Your task to perform on an android device: Open settings on Google Maps Image 0: 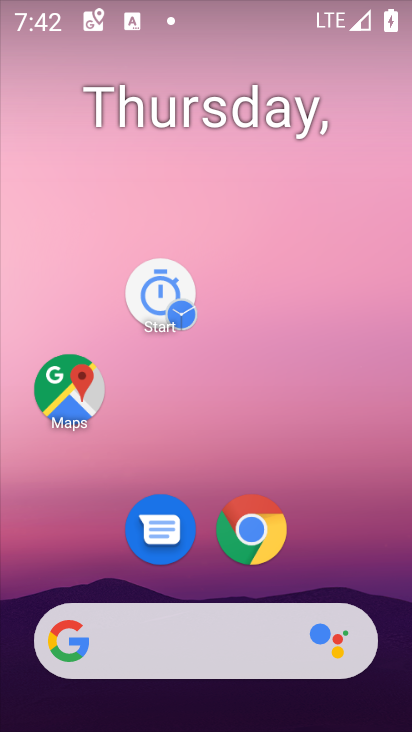
Step 0: drag from (346, 152) to (349, 62)
Your task to perform on an android device: Open settings on Google Maps Image 1: 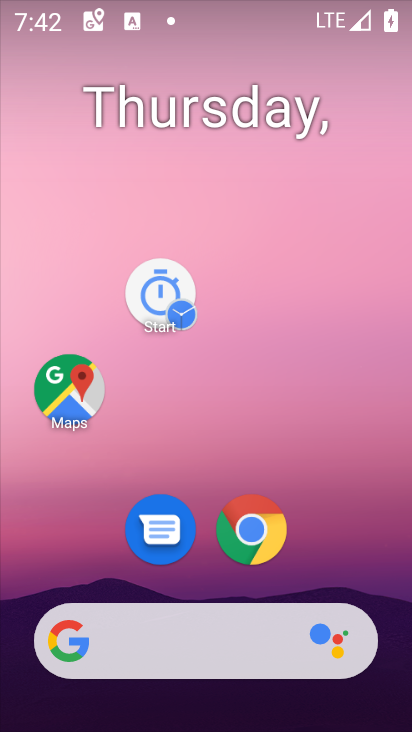
Step 1: drag from (308, 150) to (300, 116)
Your task to perform on an android device: Open settings on Google Maps Image 2: 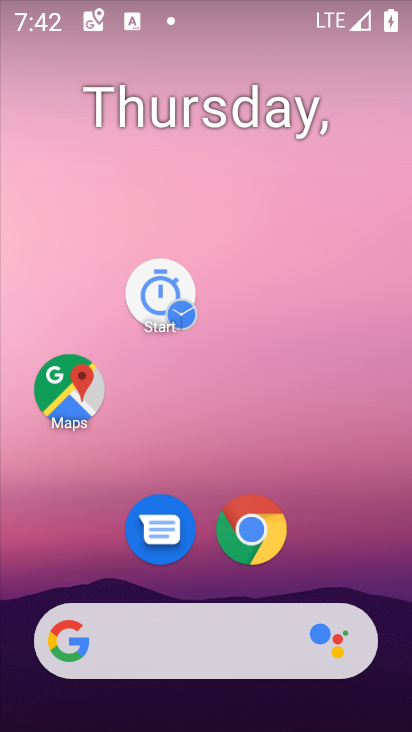
Step 2: drag from (282, 566) to (281, 118)
Your task to perform on an android device: Open settings on Google Maps Image 3: 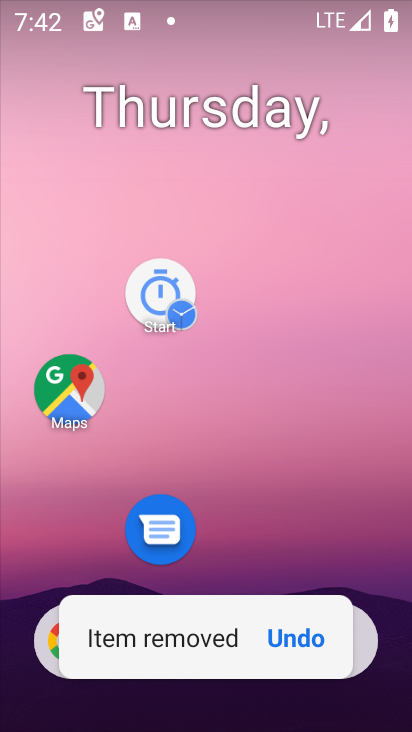
Step 3: drag from (300, 547) to (183, 5)
Your task to perform on an android device: Open settings on Google Maps Image 4: 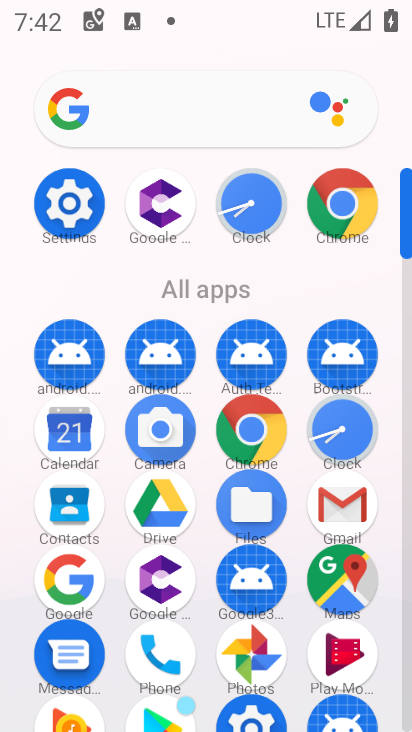
Step 4: click (367, 579)
Your task to perform on an android device: Open settings on Google Maps Image 5: 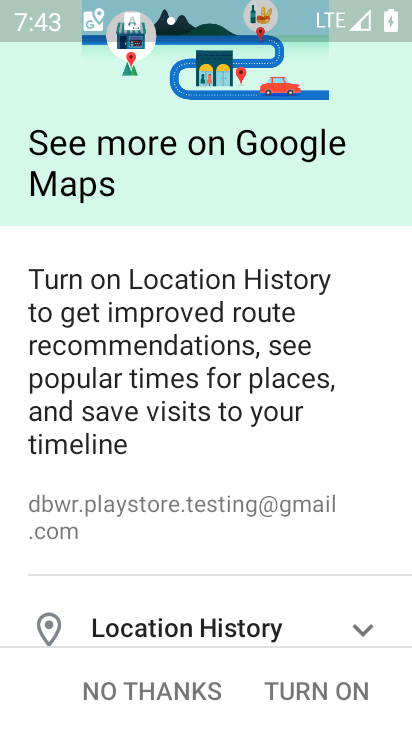
Step 5: click (177, 674)
Your task to perform on an android device: Open settings on Google Maps Image 6: 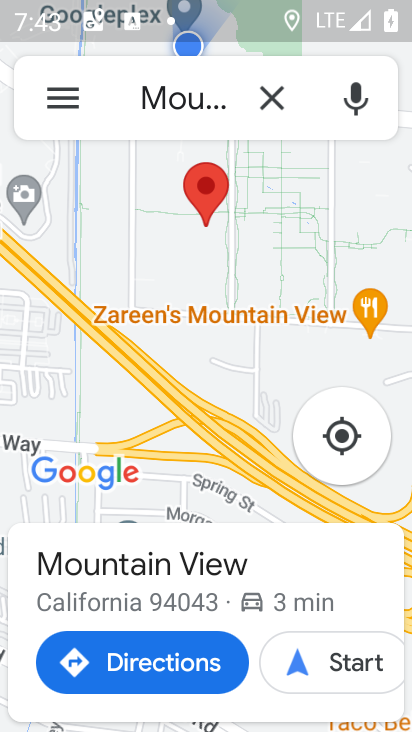
Step 6: click (63, 112)
Your task to perform on an android device: Open settings on Google Maps Image 7: 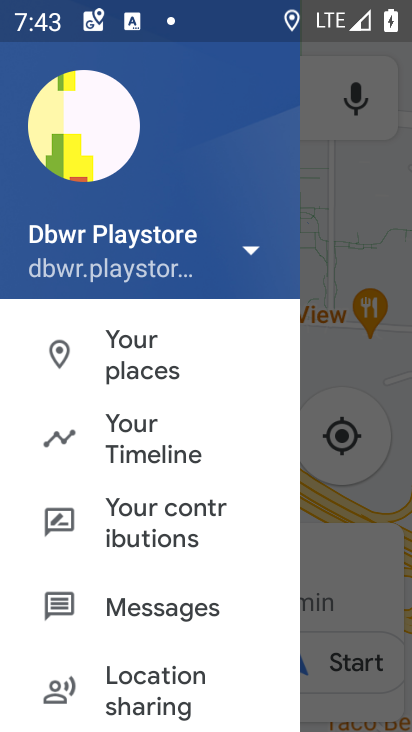
Step 7: drag from (177, 617) to (93, 327)
Your task to perform on an android device: Open settings on Google Maps Image 8: 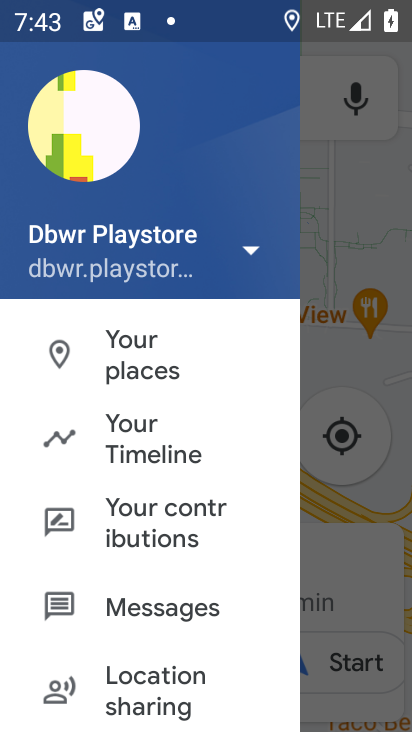
Step 8: drag from (148, 624) to (68, 316)
Your task to perform on an android device: Open settings on Google Maps Image 9: 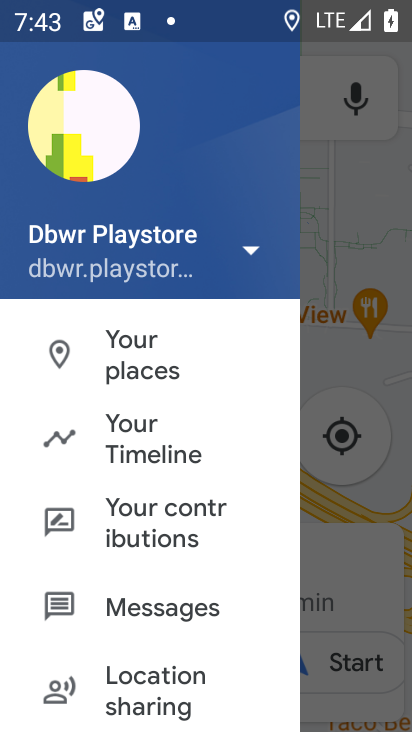
Step 9: drag from (258, 692) to (140, 162)
Your task to perform on an android device: Open settings on Google Maps Image 10: 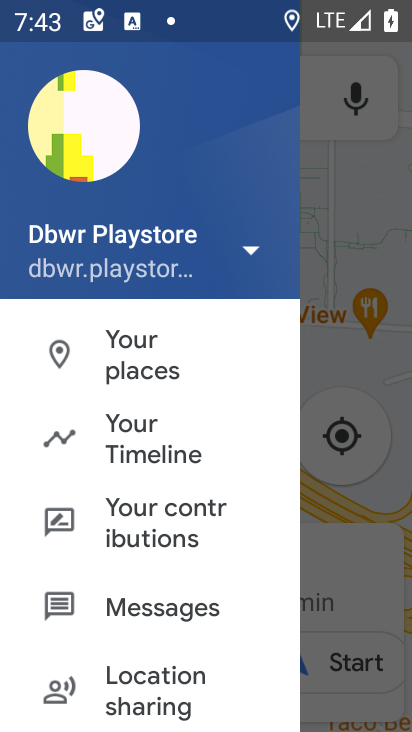
Step 10: drag from (146, 672) to (22, 151)
Your task to perform on an android device: Open settings on Google Maps Image 11: 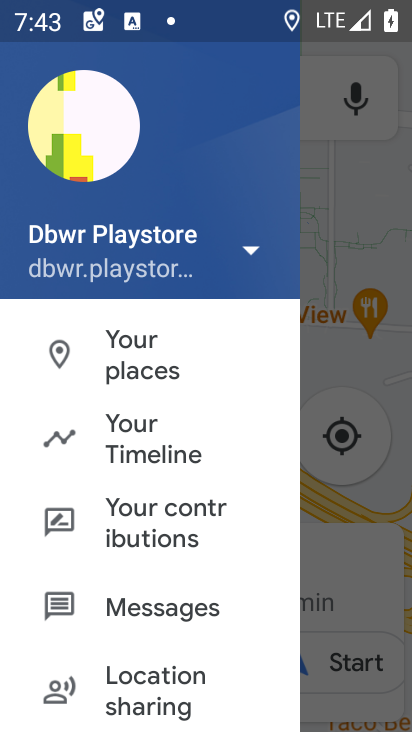
Step 11: drag from (163, 609) to (124, 188)
Your task to perform on an android device: Open settings on Google Maps Image 12: 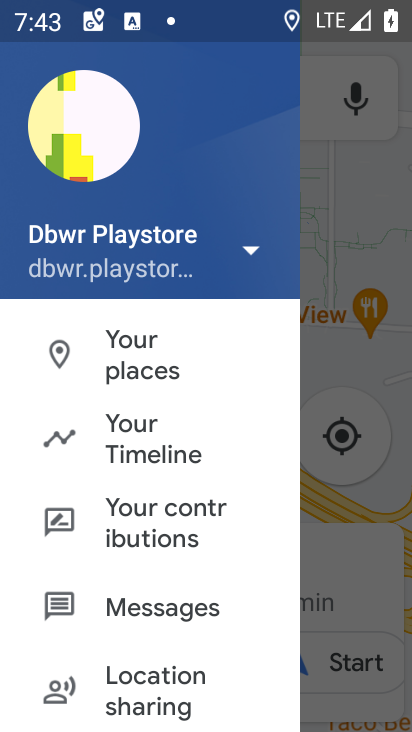
Step 12: drag from (171, 608) to (65, 262)
Your task to perform on an android device: Open settings on Google Maps Image 13: 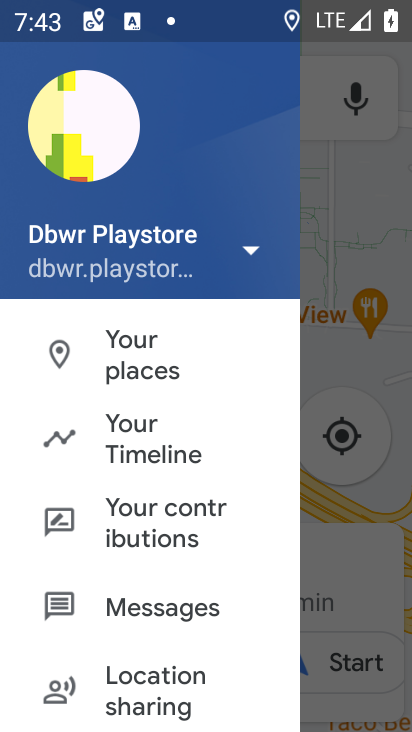
Step 13: drag from (162, 487) to (93, 120)
Your task to perform on an android device: Open settings on Google Maps Image 14: 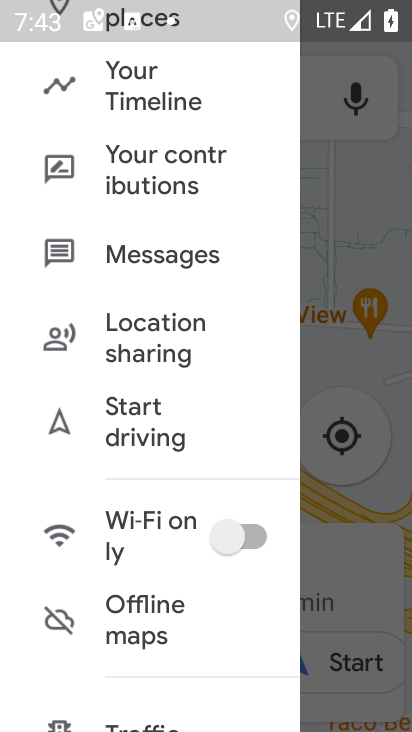
Step 14: drag from (183, 613) to (78, 301)
Your task to perform on an android device: Open settings on Google Maps Image 15: 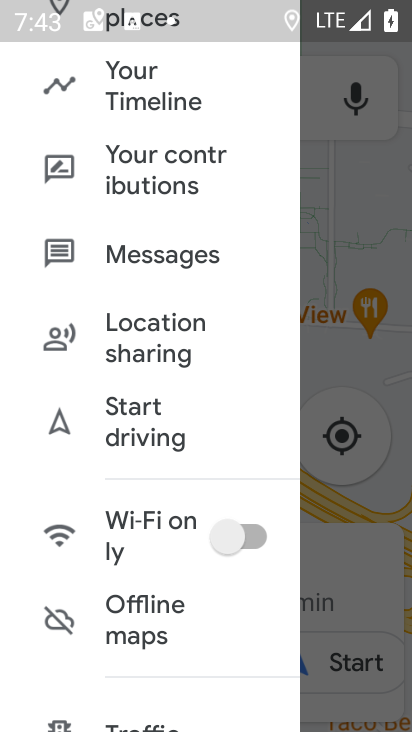
Step 15: drag from (147, 439) to (151, 121)
Your task to perform on an android device: Open settings on Google Maps Image 16: 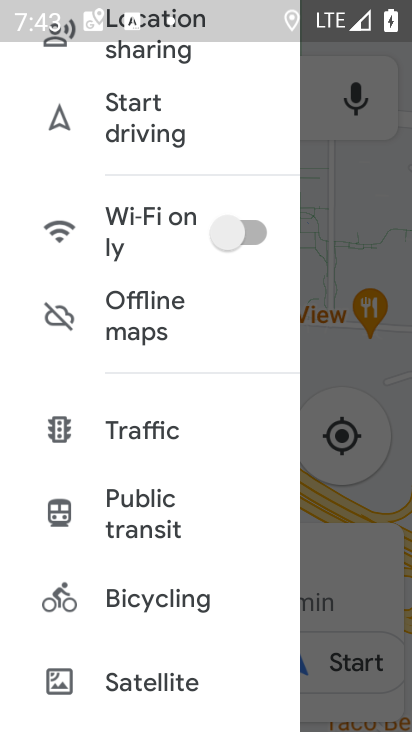
Step 16: drag from (192, 436) to (164, 165)
Your task to perform on an android device: Open settings on Google Maps Image 17: 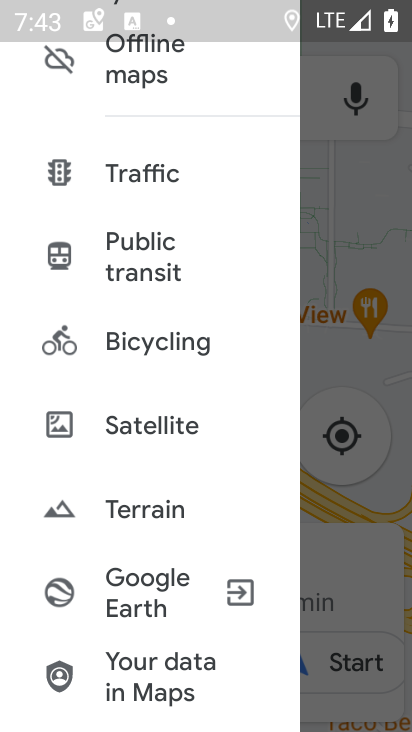
Step 17: drag from (142, 503) to (85, 197)
Your task to perform on an android device: Open settings on Google Maps Image 18: 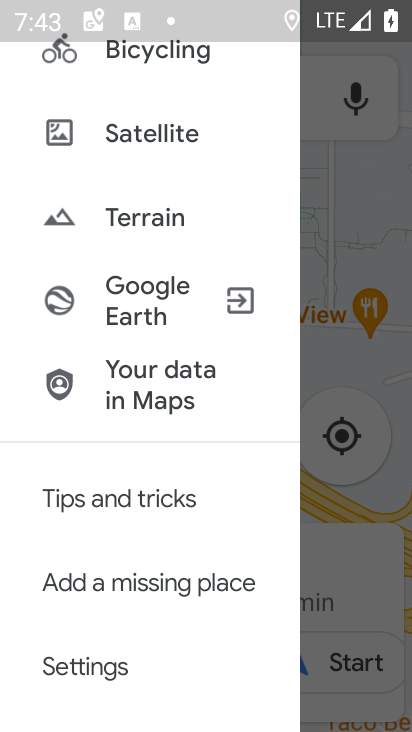
Step 18: click (96, 664)
Your task to perform on an android device: Open settings on Google Maps Image 19: 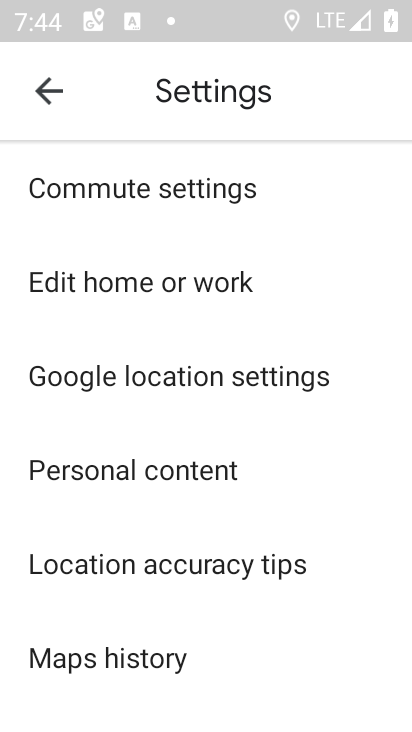
Step 19: task complete